Your task to perform on an android device: Open CNN.com Image 0: 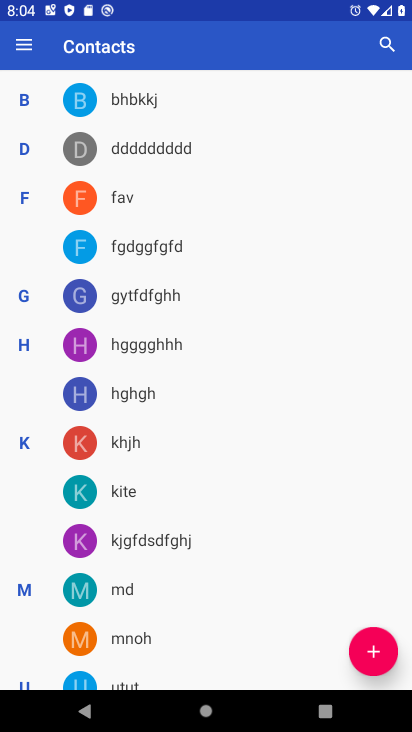
Step 0: press home button
Your task to perform on an android device: Open CNN.com Image 1: 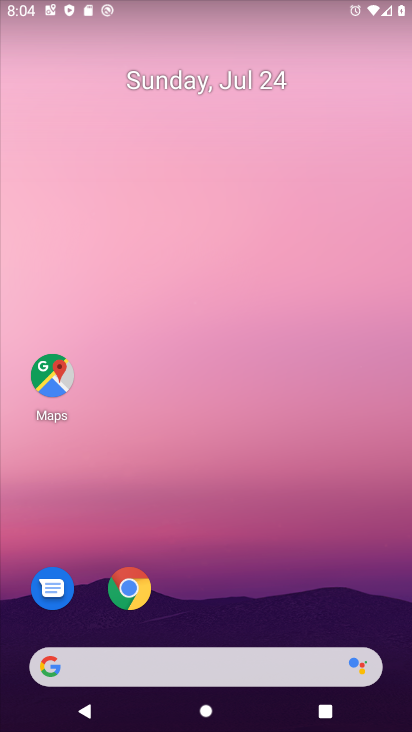
Step 1: drag from (297, 601) to (236, 0)
Your task to perform on an android device: Open CNN.com Image 2: 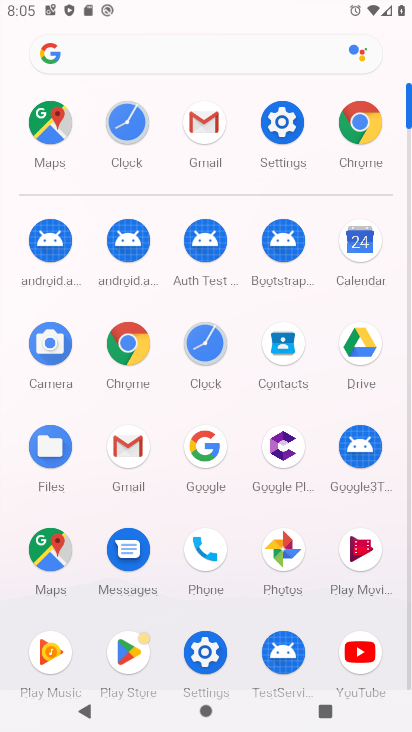
Step 2: click (355, 118)
Your task to perform on an android device: Open CNN.com Image 3: 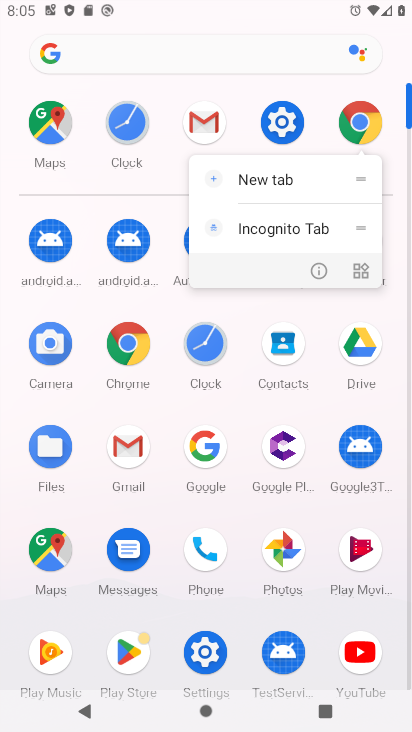
Step 3: click (369, 131)
Your task to perform on an android device: Open CNN.com Image 4: 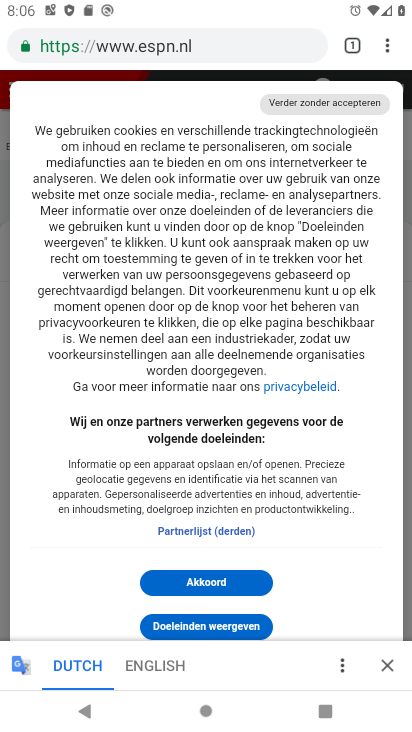
Step 4: click (287, 43)
Your task to perform on an android device: Open CNN.com Image 5: 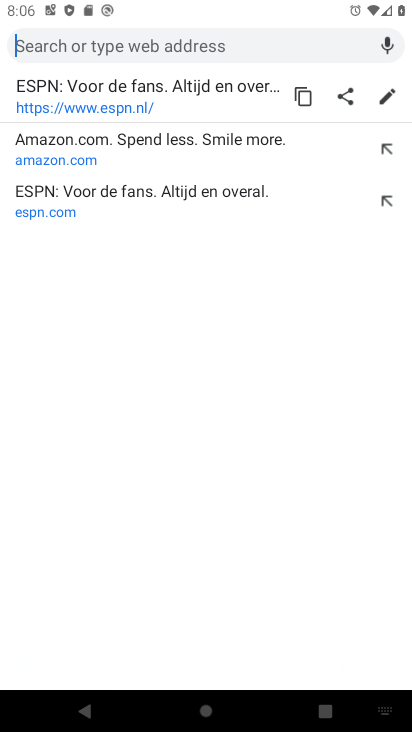
Step 5: type "CNN.com"
Your task to perform on an android device: Open CNN.com Image 6: 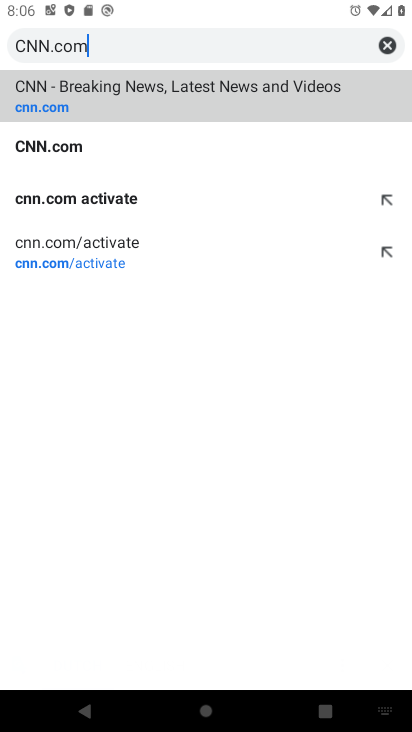
Step 6: click (71, 146)
Your task to perform on an android device: Open CNN.com Image 7: 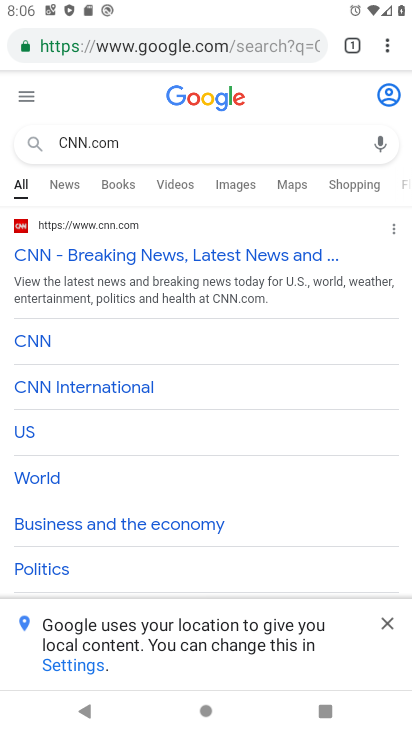
Step 7: click (39, 252)
Your task to perform on an android device: Open CNN.com Image 8: 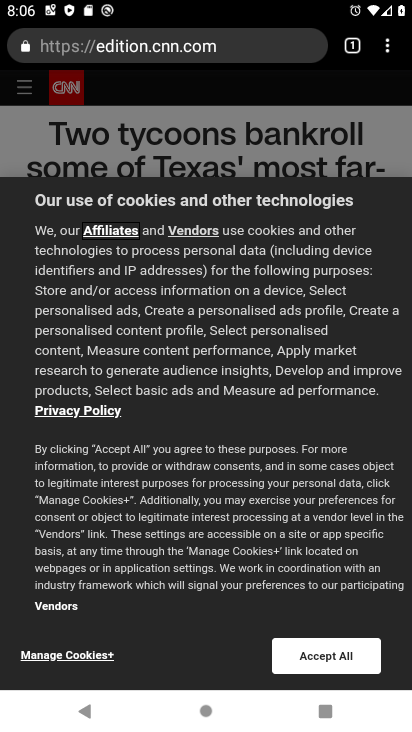
Step 8: task complete